Your task to perform on an android device: find photos in the google photos app Image 0: 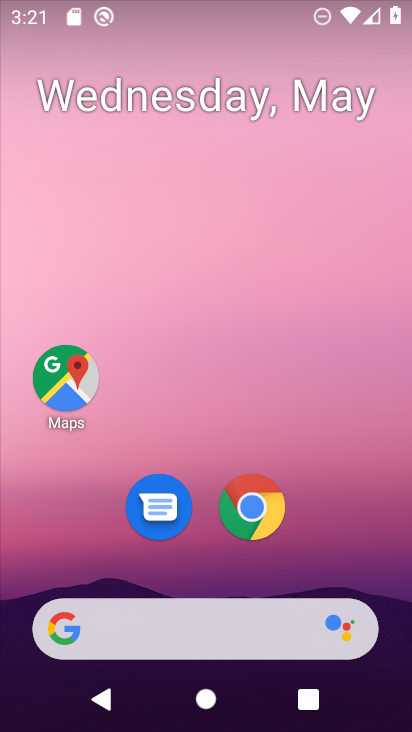
Step 0: drag from (201, 569) to (316, 3)
Your task to perform on an android device: find photos in the google photos app Image 1: 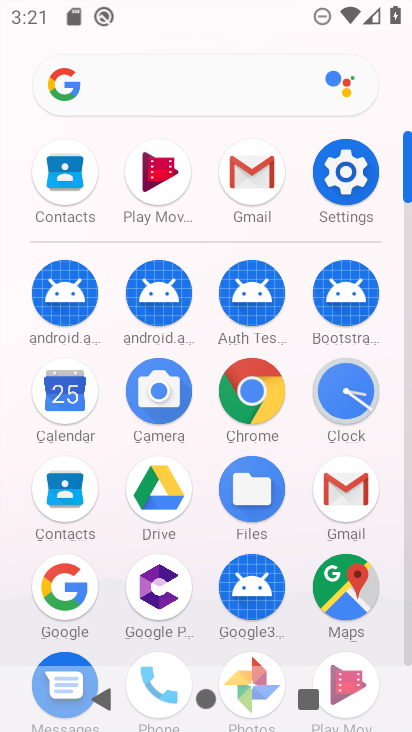
Step 1: drag from (186, 635) to (221, 335)
Your task to perform on an android device: find photos in the google photos app Image 2: 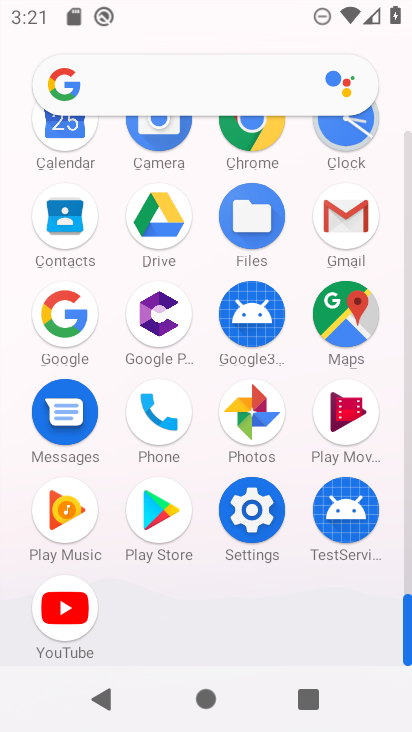
Step 2: click (255, 425)
Your task to perform on an android device: find photos in the google photos app Image 3: 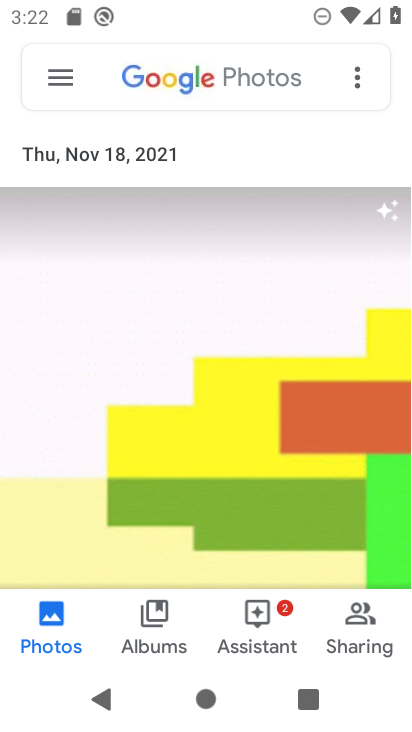
Step 3: task complete